Your task to perform on an android device: Open the phone app and click the voicemail tab. Image 0: 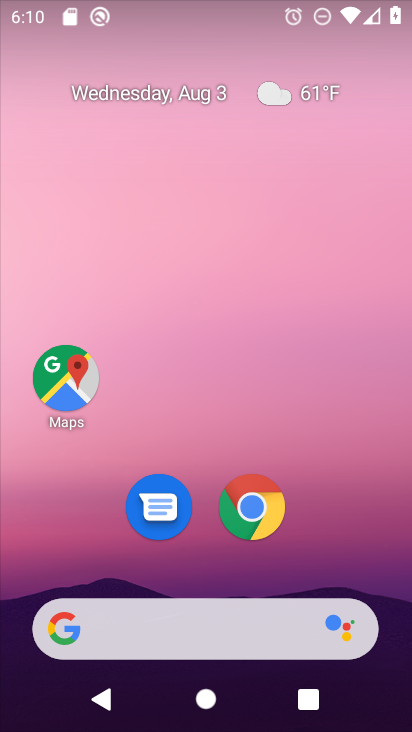
Step 0: drag from (347, 458) to (309, 51)
Your task to perform on an android device: Open the phone app and click the voicemail tab. Image 1: 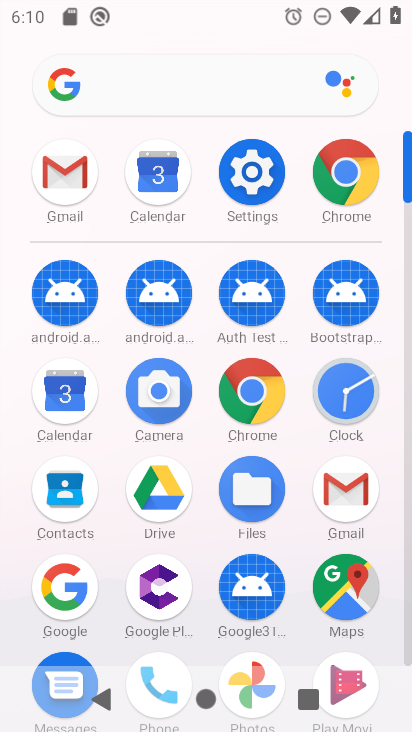
Step 1: drag from (292, 567) to (307, 223)
Your task to perform on an android device: Open the phone app and click the voicemail tab. Image 2: 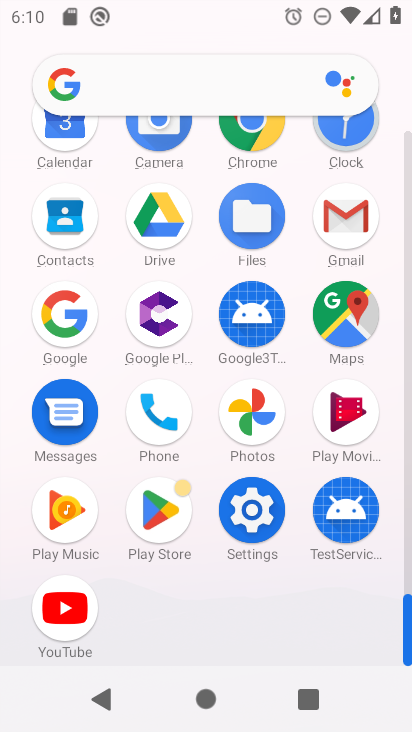
Step 2: click (148, 423)
Your task to perform on an android device: Open the phone app and click the voicemail tab. Image 3: 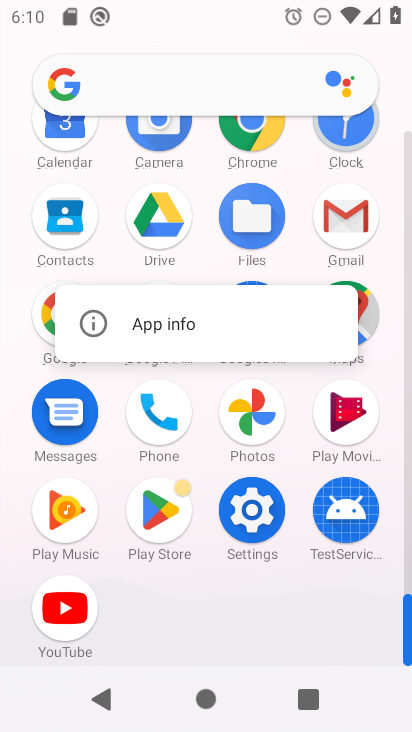
Step 3: click (166, 409)
Your task to perform on an android device: Open the phone app and click the voicemail tab. Image 4: 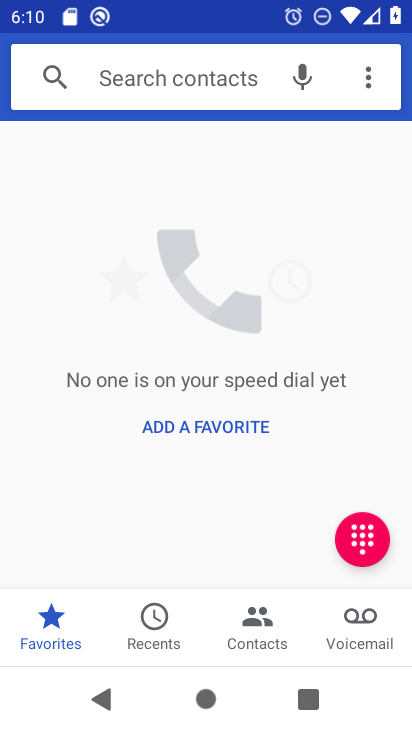
Step 4: click (383, 630)
Your task to perform on an android device: Open the phone app and click the voicemail tab. Image 5: 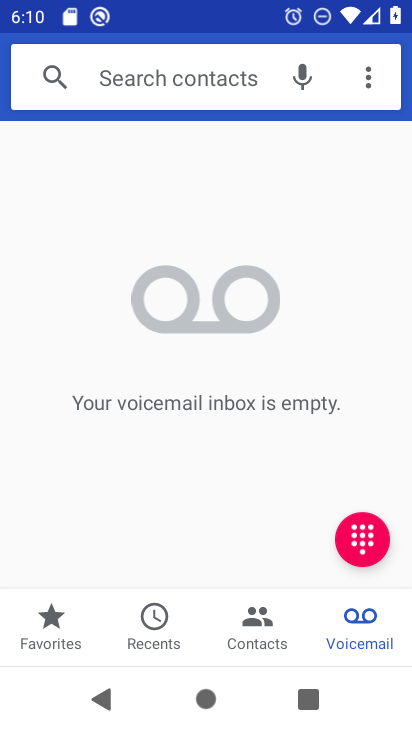
Step 5: task complete